Your task to perform on an android device: When is my next meeting? Image 0: 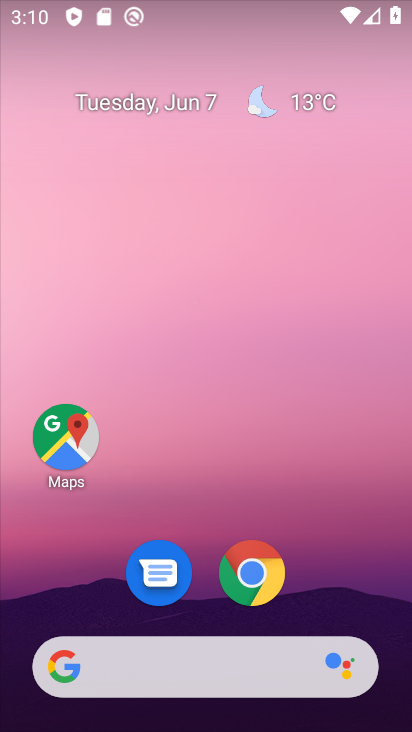
Step 0: drag from (329, 607) to (244, 243)
Your task to perform on an android device: When is my next meeting? Image 1: 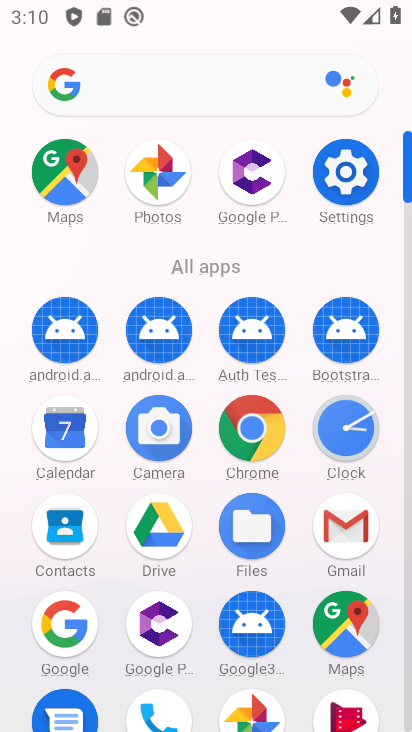
Step 1: click (53, 450)
Your task to perform on an android device: When is my next meeting? Image 2: 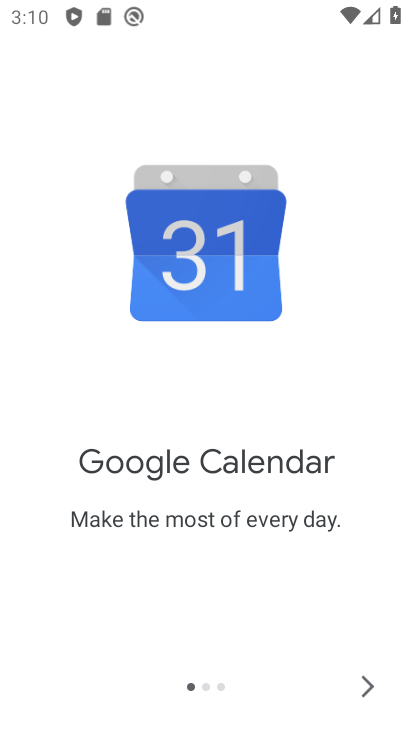
Step 2: click (368, 678)
Your task to perform on an android device: When is my next meeting? Image 3: 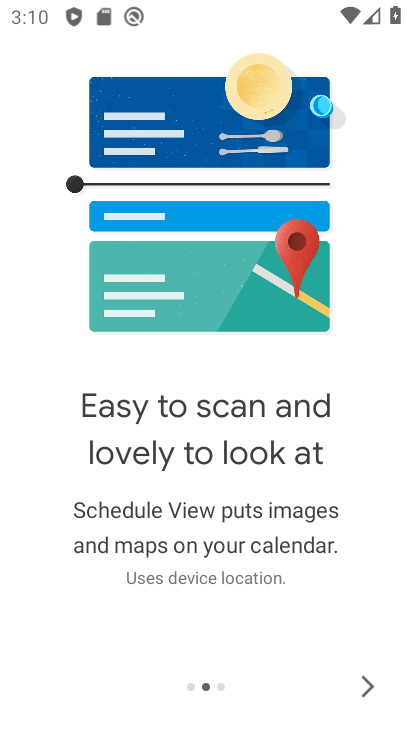
Step 3: click (368, 678)
Your task to perform on an android device: When is my next meeting? Image 4: 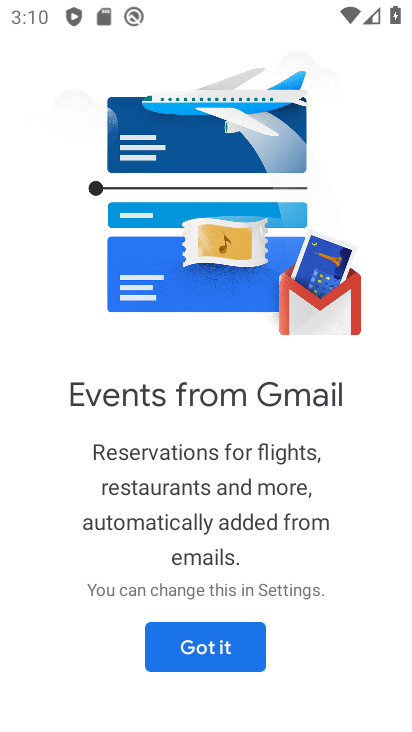
Step 4: click (247, 657)
Your task to perform on an android device: When is my next meeting? Image 5: 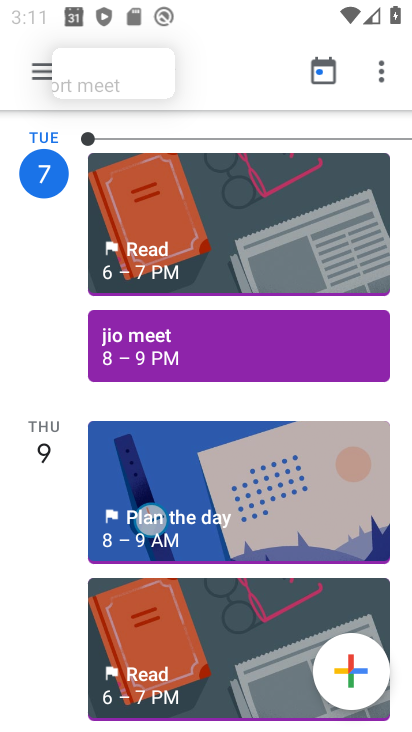
Step 5: task complete